Your task to perform on an android device: Open calendar and show me the fourth week of next month Image 0: 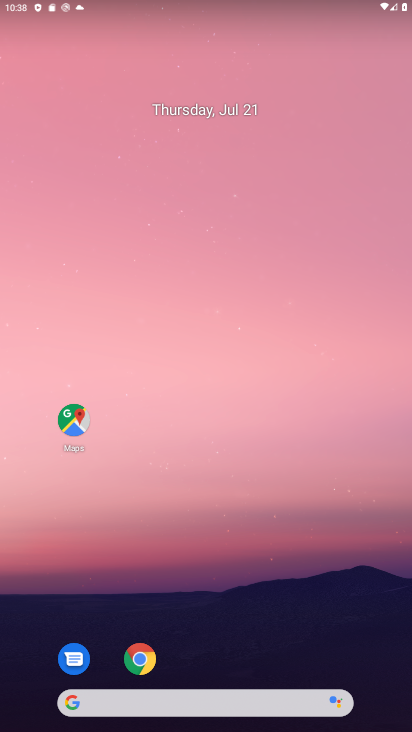
Step 0: drag from (209, 640) to (209, 150)
Your task to perform on an android device: Open calendar and show me the fourth week of next month Image 1: 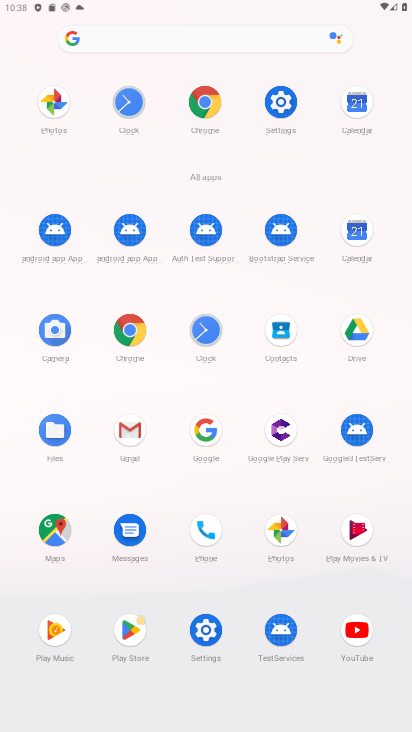
Step 1: click (334, 122)
Your task to perform on an android device: Open calendar and show me the fourth week of next month Image 2: 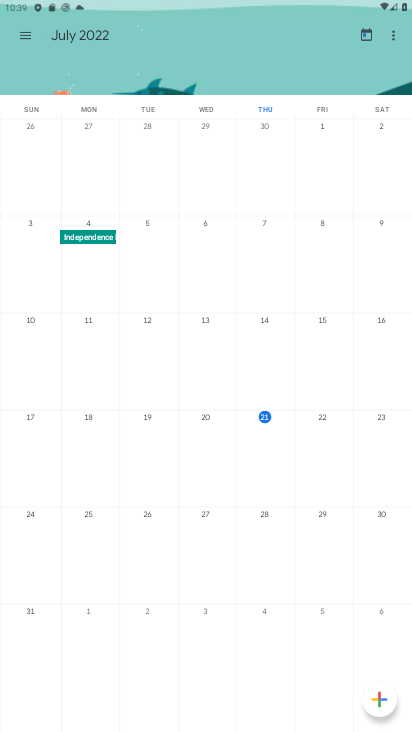
Step 2: task complete